Your task to perform on an android device: Show me productivity apps on the Play Store Image 0: 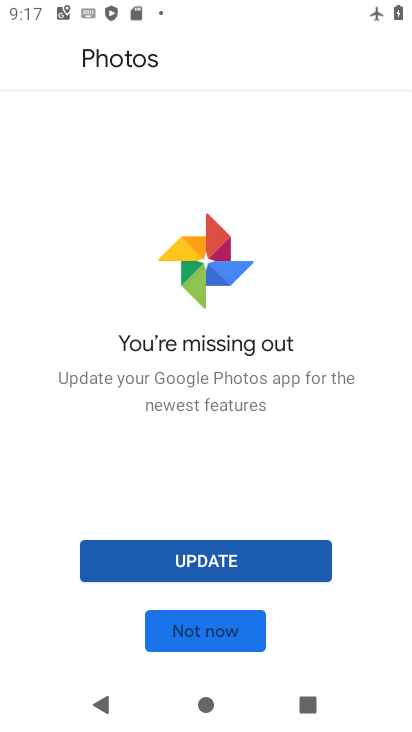
Step 0: press home button
Your task to perform on an android device: Show me productivity apps on the Play Store Image 1: 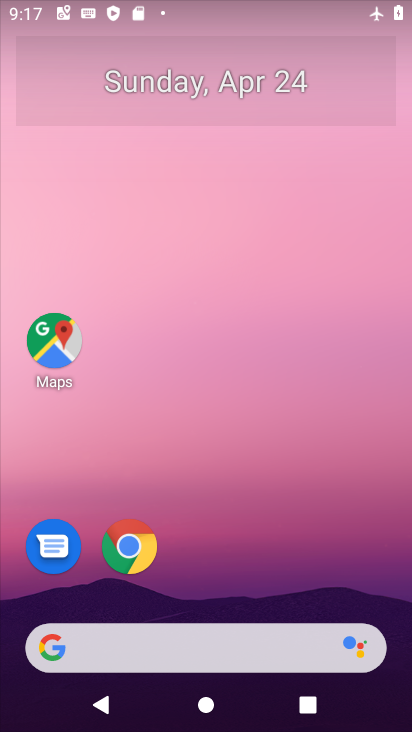
Step 1: drag from (289, 385) to (290, 334)
Your task to perform on an android device: Show me productivity apps on the Play Store Image 2: 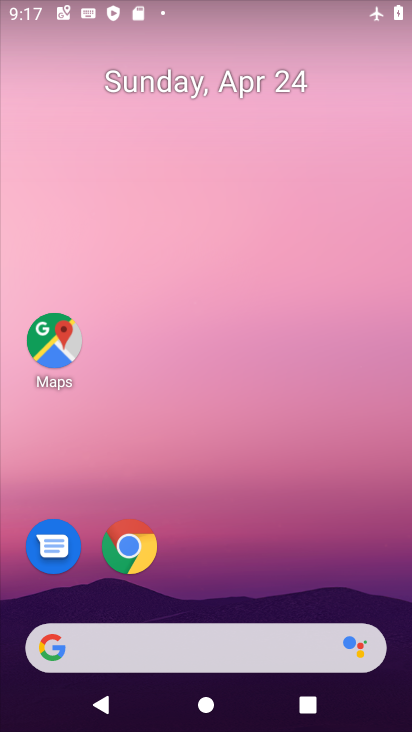
Step 2: drag from (221, 599) to (254, 277)
Your task to perform on an android device: Show me productivity apps on the Play Store Image 3: 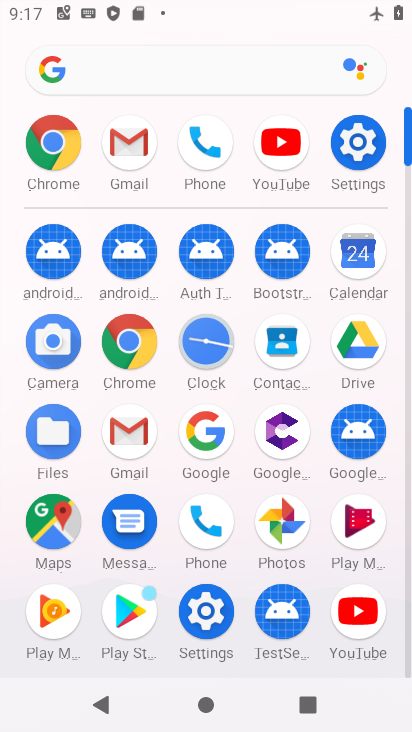
Step 3: click (128, 592)
Your task to perform on an android device: Show me productivity apps on the Play Store Image 4: 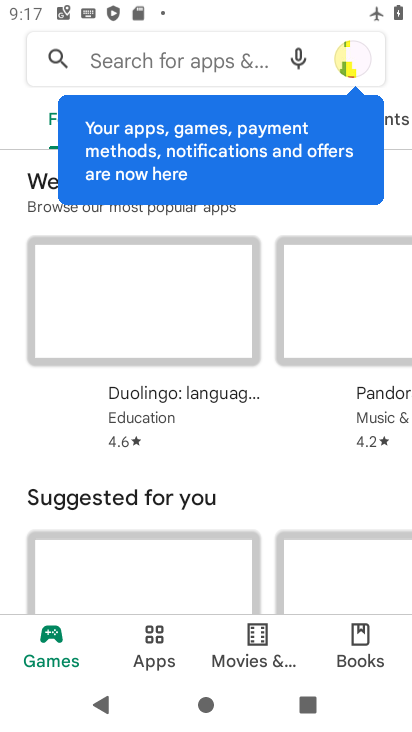
Step 4: click (158, 634)
Your task to perform on an android device: Show me productivity apps on the Play Store Image 5: 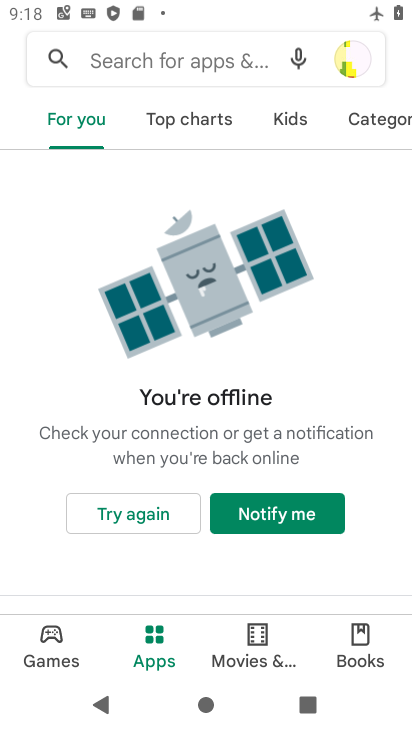
Step 5: task complete